Your task to perform on an android device: Turn on the flashlight Image 0: 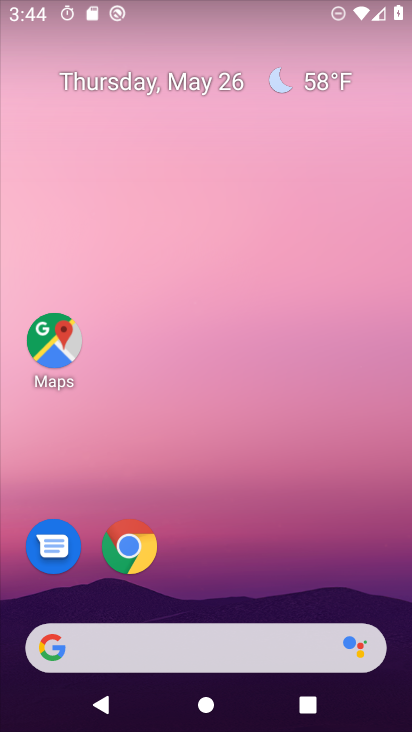
Step 0: press home button
Your task to perform on an android device: Turn on the flashlight Image 1: 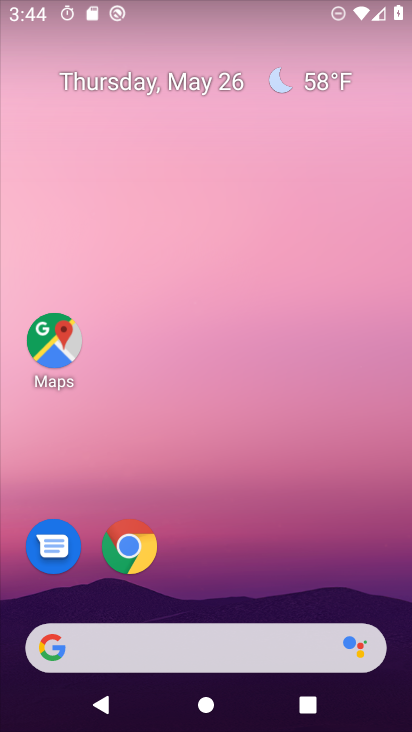
Step 1: drag from (213, 594) to (229, 69)
Your task to perform on an android device: Turn on the flashlight Image 2: 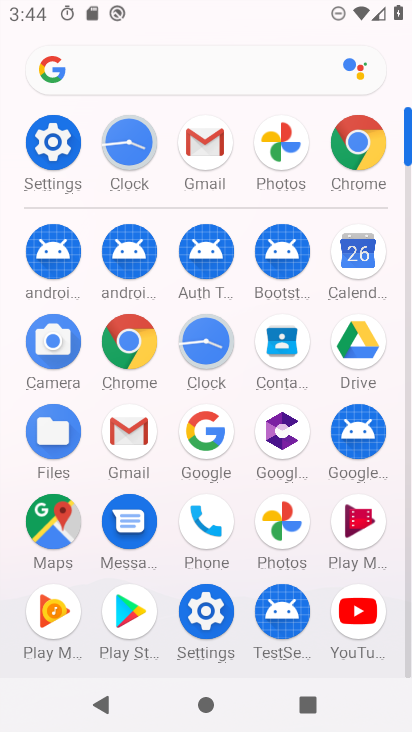
Step 2: click (49, 133)
Your task to perform on an android device: Turn on the flashlight Image 3: 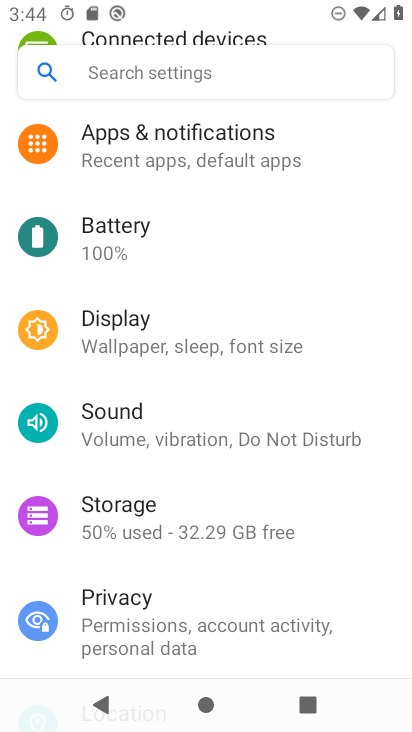
Step 3: click (142, 59)
Your task to perform on an android device: Turn on the flashlight Image 4: 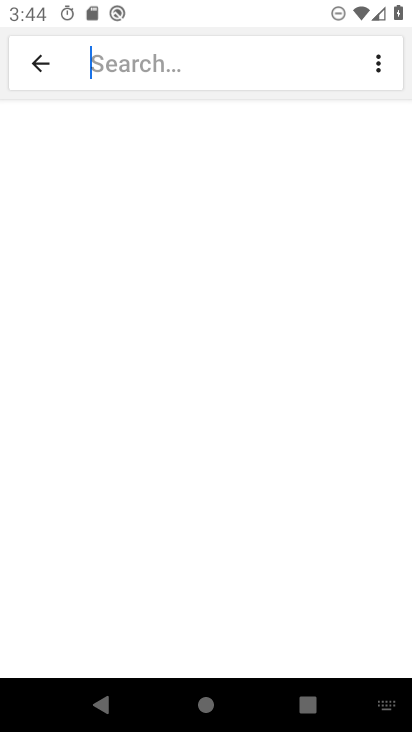
Step 4: type "flashlight"
Your task to perform on an android device: Turn on the flashlight Image 5: 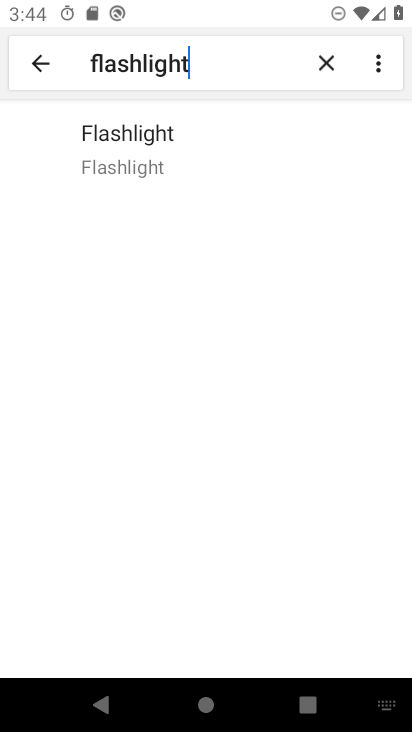
Step 5: click (171, 146)
Your task to perform on an android device: Turn on the flashlight Image 6: 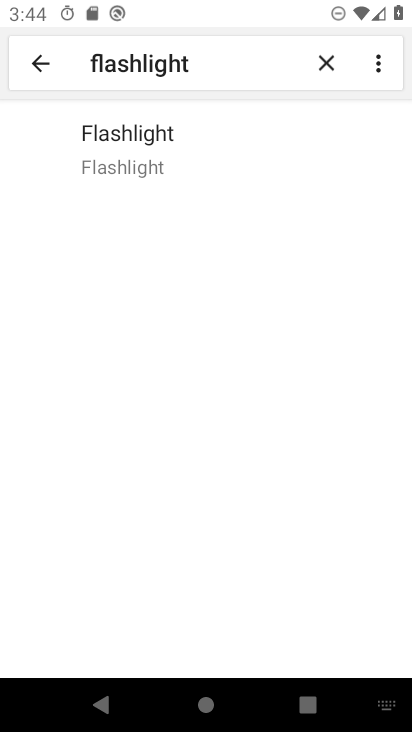
Step 6: task complete